Your task to perform on an android device: turn off javascript in the chrome app Image 0: 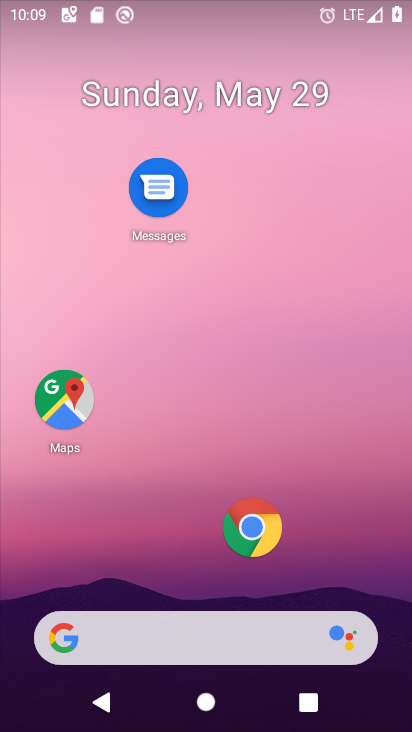
Step 0: press home button
Your task to perform on an android device: turn off javascript in the chrome app Image 1: 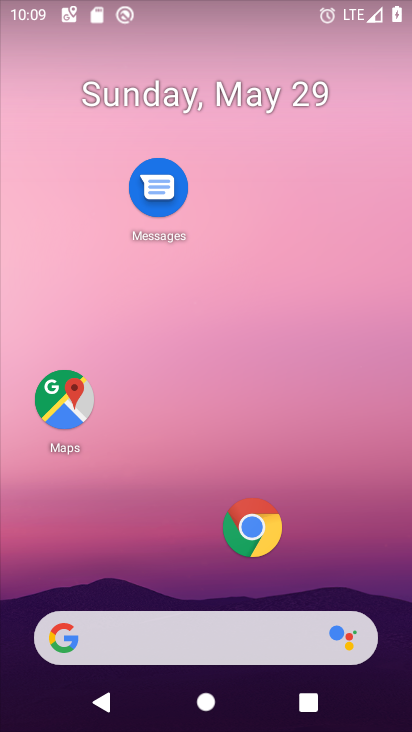
Step 1: click (256, 528)
Your task to perform on an android device: turn off javascript in the chrome app Image 2: 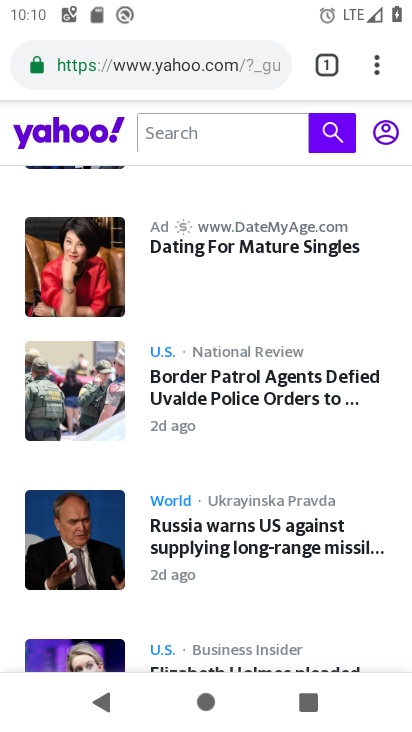
Step 2: click (380, 68)
Your task to perform on an android device: turn off javascript in the chrome app Image 3: 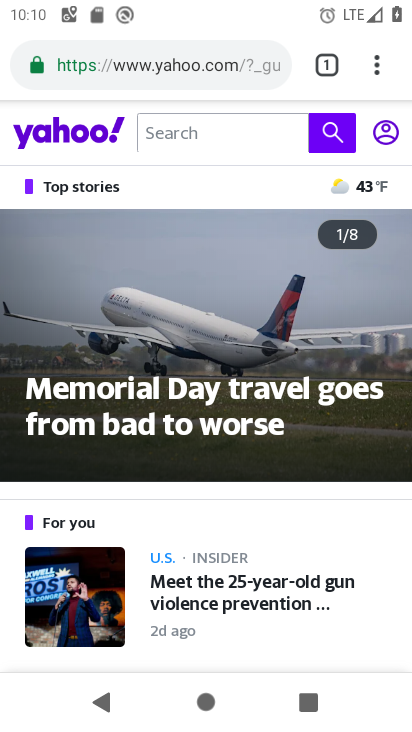
Step 3: click (380, 61)
Your task to perform on an android device: turn off javascript in the chrome app Image 4: 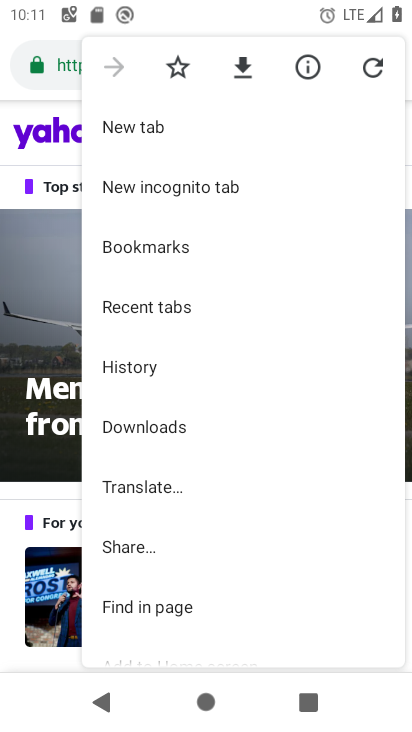
Step 4: drag from (234, 568) to (230, 114)
Your task to perform on an android device: turn off javascript in the chrome app Image 5: 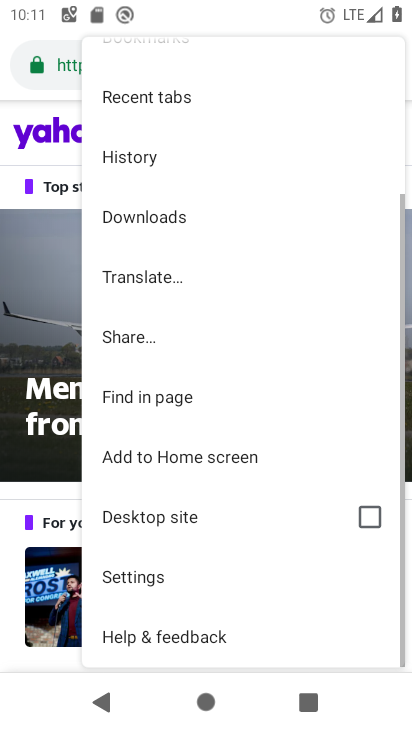
Step 5: click (180, 572)
Your task to perform on an android device: turn off javascript in the chrome app Image 6: 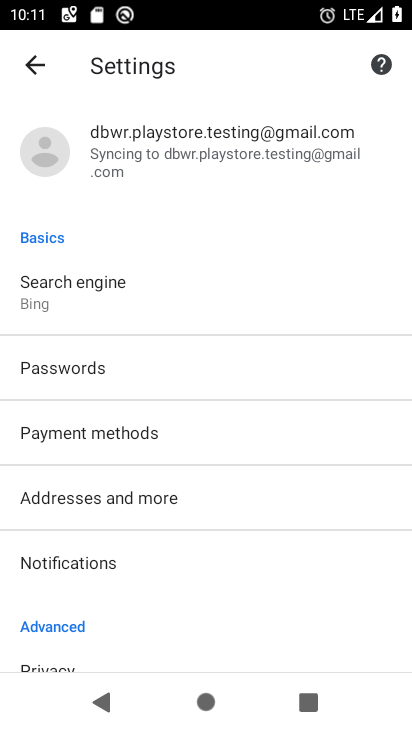
Step 6: drag from (214, 574) to (211, 4)
Your task to perform on an android device: turn off javascript in the chrome app Image 7: 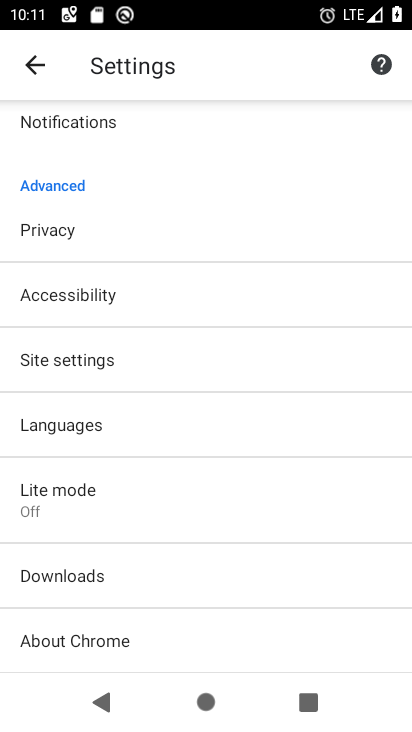
Step 7: click (131, 353)
Your task to perform on an android device: turn off javascript in the chrome app Image 8: 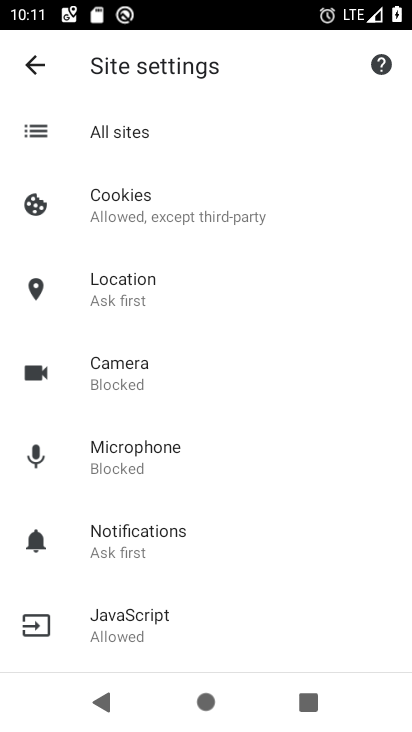
Step 8: click (174, 618)
Your task to perform on an android device: turn off javascript in the chrome app Image 9: 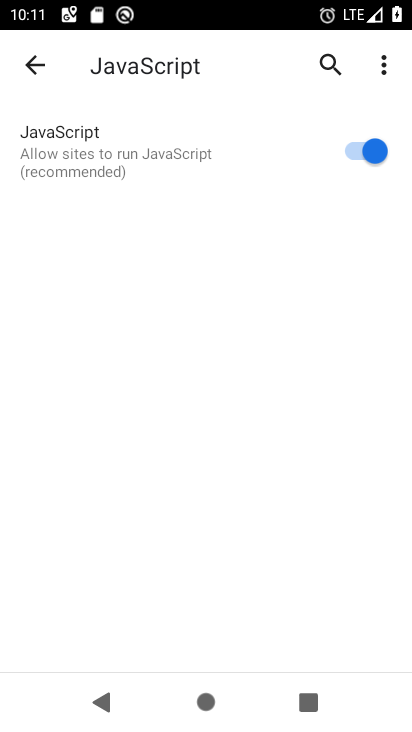
Step 9: click (361, 134)
Your task to perform on an android device: turn off javascript in the chrome app Image 10: 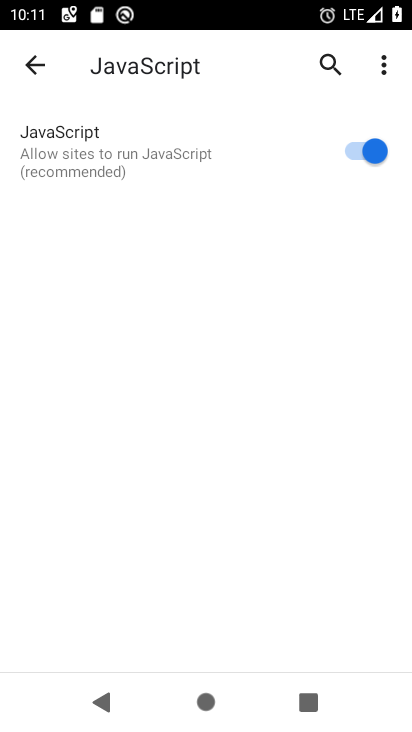
Step 10: task complete